Your task to perform on an android device: snooze an email in the gmail app Image 0: 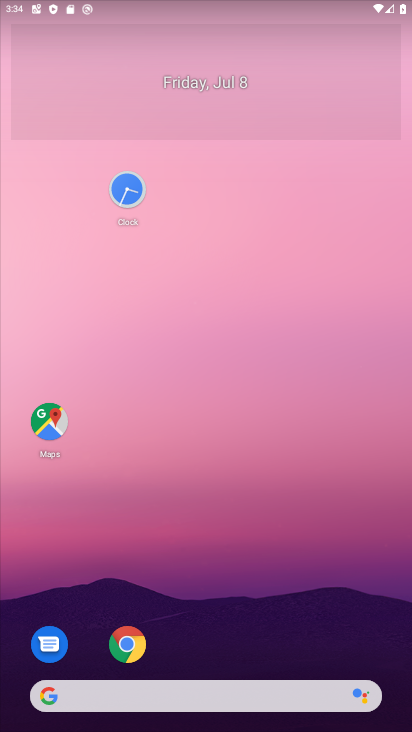
Step 0: drag from (231, 488) to (141, 109)
Your task to perform on an android device: snooze an email in the gmail app Image 1: 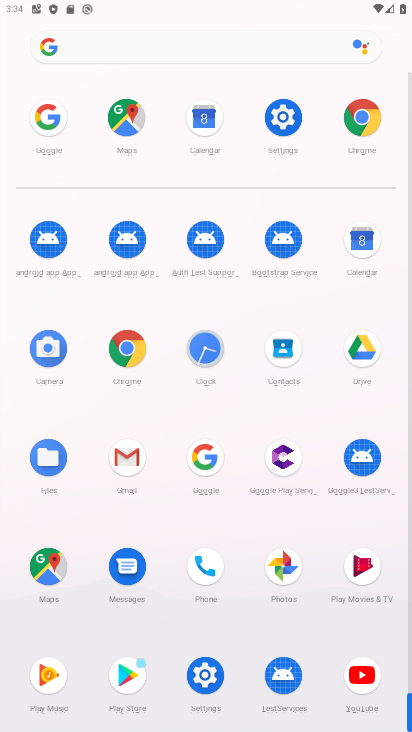
Step 1: click (122, 468)
Your task to perform on an android device: snooze an email in the gmail app Image 2: 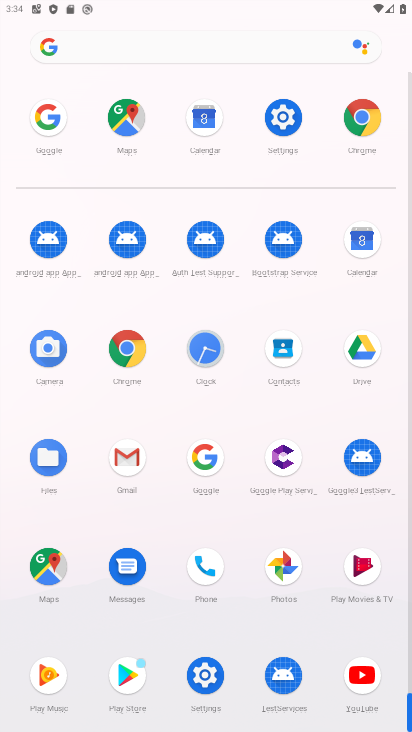
Step 2: click (121, 465)
Your task to perform on an android device: snooze an email in the gmail app Image 3: 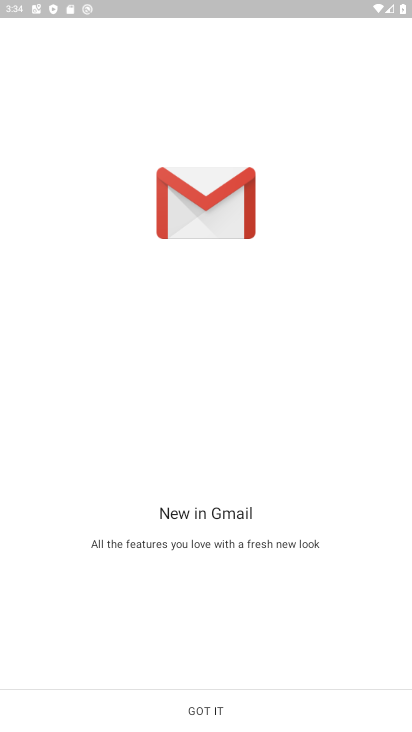
Step 3: click (126, 463)
Your task to perform on an android device: snooze an email in the gmail app Image 4: 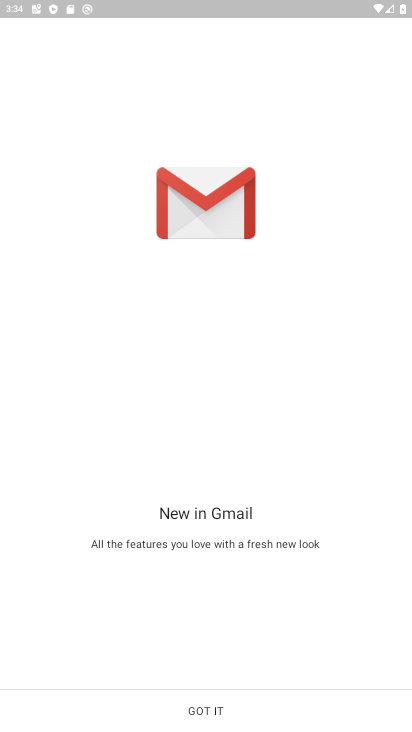
Step 4: click (126, 463)
Your task to perform on an android device: snooze an email in the gmail app Image 5: 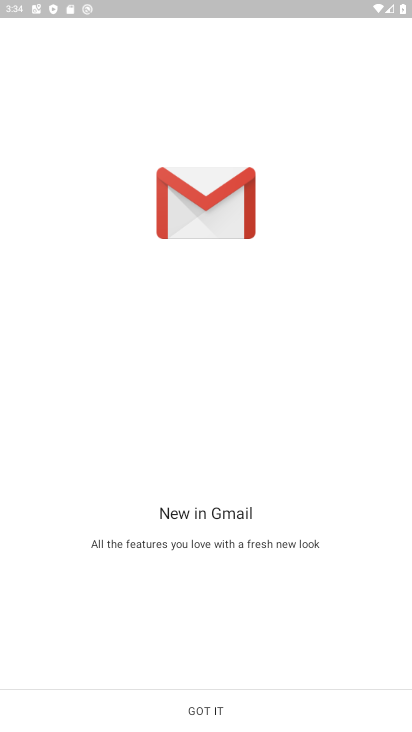
Step 5: click (126, 463)
Your task to perform on an android device: snooze an email in the gmail app Image 6: 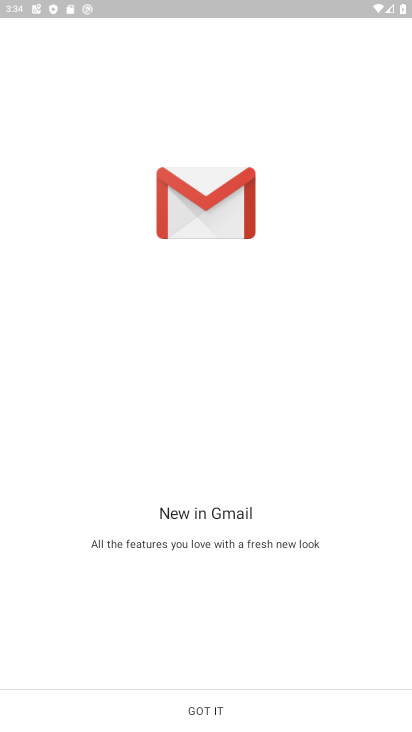
Step 6: click (126, 460)
Your task to perform on an android device: snooze an email in the gmail app Image 7: 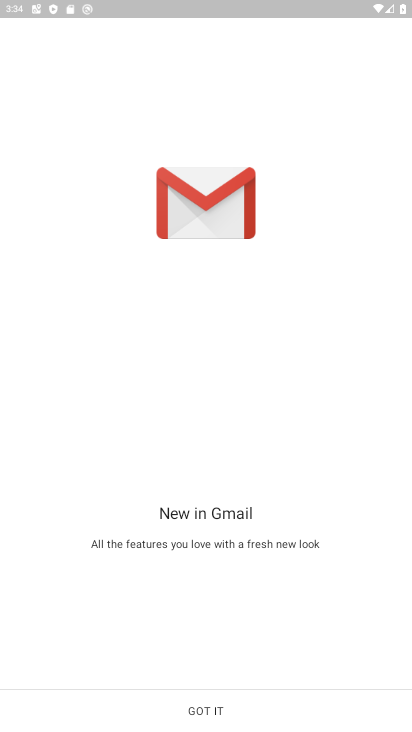
Step 7: click (120, 457)
Your task to perform on an android device: snooze an email in the gmail app Image 8: 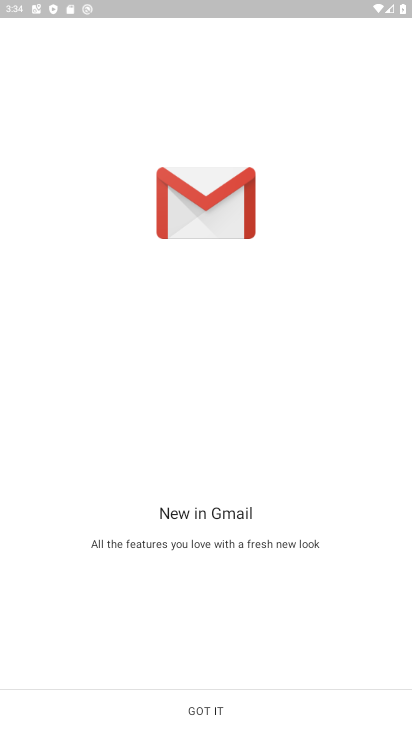
Step 8: click (120, 457)
Your task to perform on an android device: snooze an email in the gmail app Image 9: 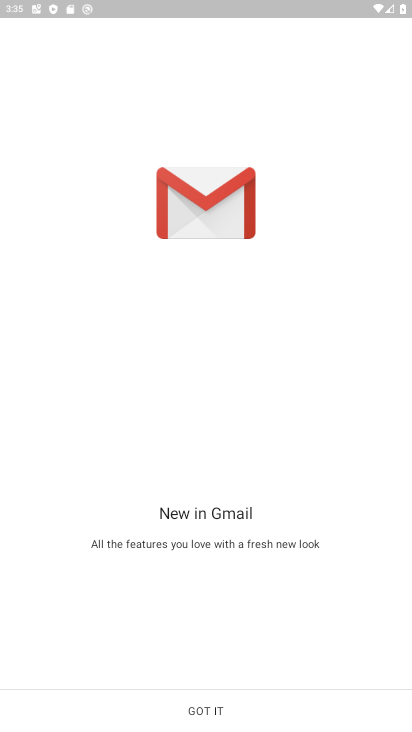
Step 9: click (212, 710)
Your task to perform on an android device: snooze an email in the gmail app Image 10: 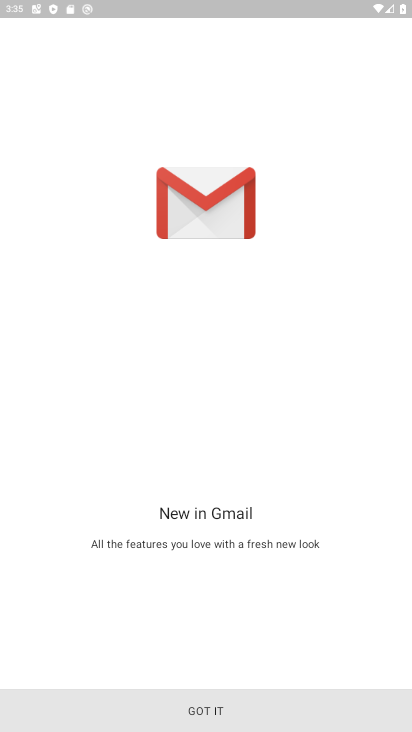
Step 10: click (210, 711)
Your task to perform on an android device: snooze an email in the gmail app Image 11: 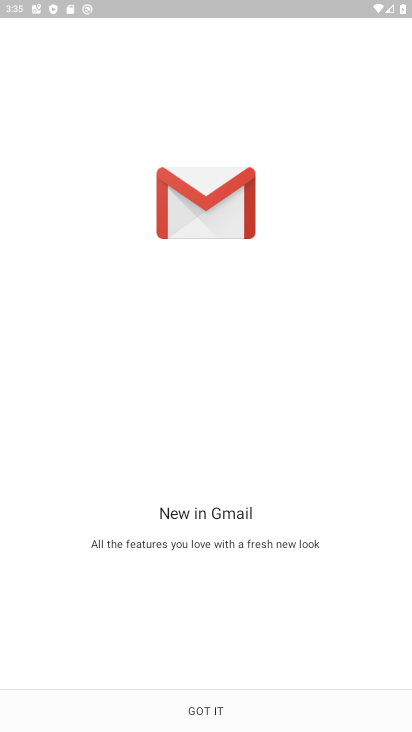
Step 11: click (207, 711)
Your task to perform on an android device: snooze an email in the gmail app Image 12: 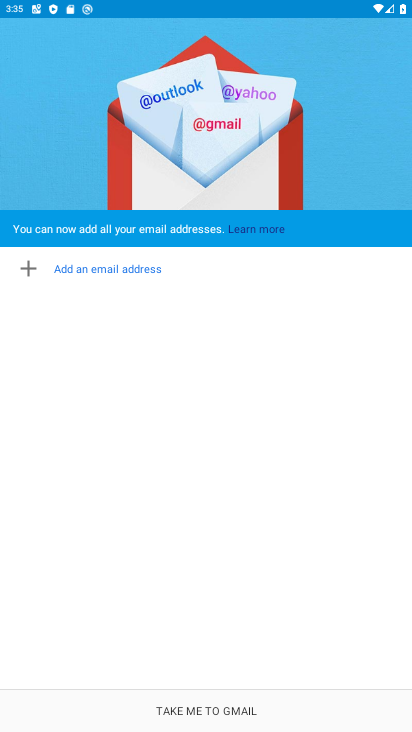
Step 12: click (207, 711)
Your task to perform on an android device: snooze an email in the gmail app Image 13: 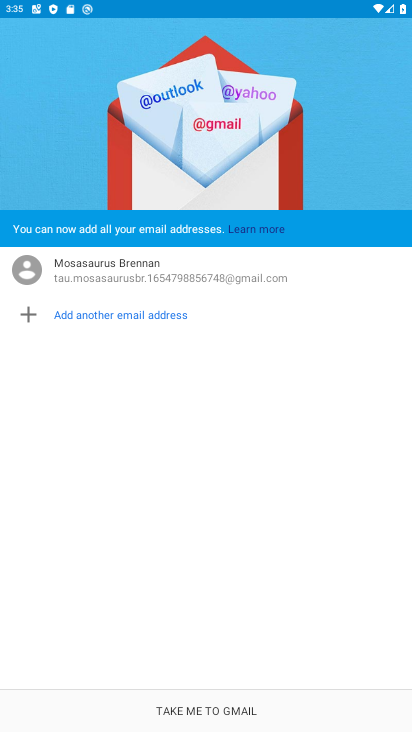
Step 13: click (207, 711)
Your task to perform on an android device: snooze an email in the gmail app Image 14: 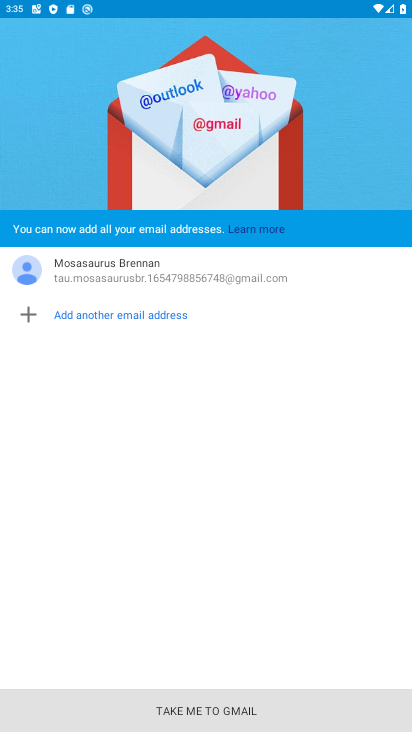
Step 14: click (207, 711)
Your task to perform on an android device: snooze an email in the gmail app Image 15: 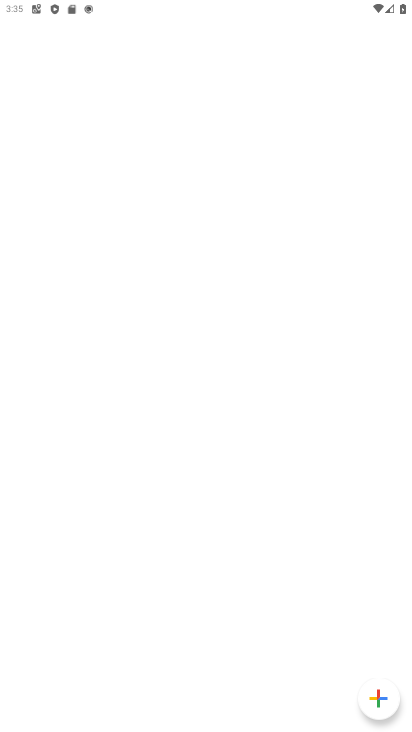
Step 15: click (207, 711)
Your task to perform on an android device: snooze an email in the gmail app Image 16: 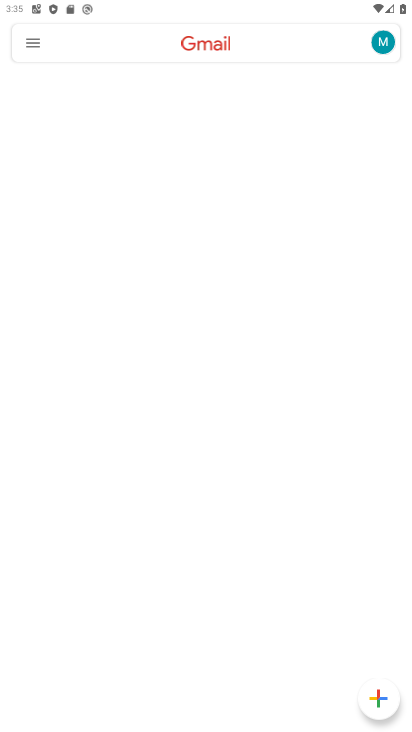
Step 16: click (207, 709)
Your task to perform on an android device: snooze an email in the gmail app Image 17: 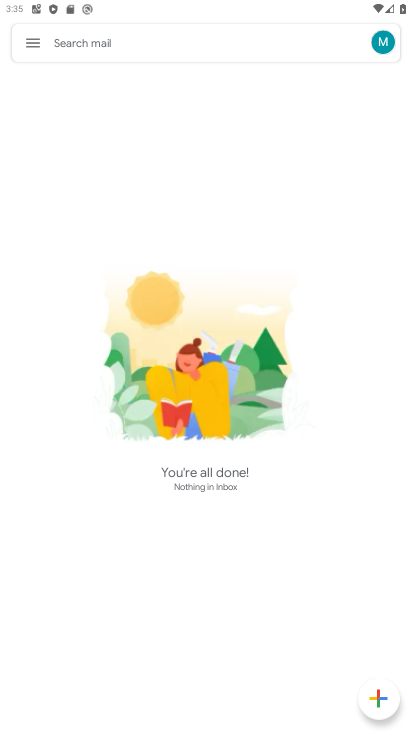
Step 17: click (35, 44)
Your task to perform on an android device: snooze an email in the gmail app Image 18: 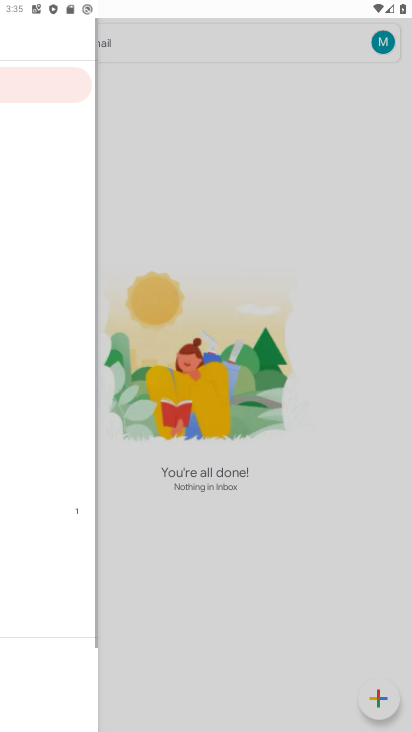
Step 18: click (34, 46)
Your task to perform on an android device: snooze an email in the gmail app Image 19: 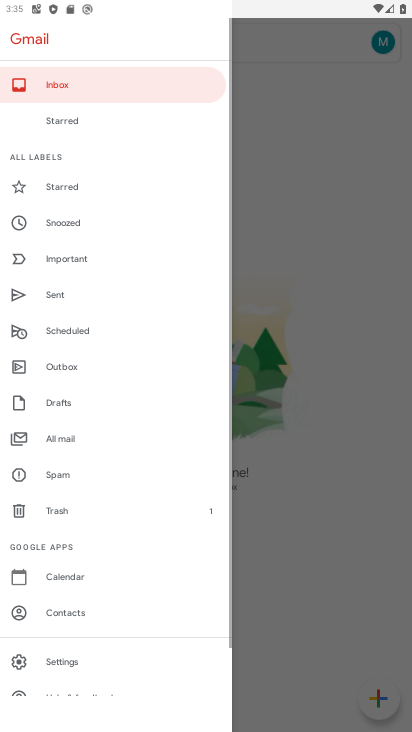
Step 19: click (35, 47)
Your task to perform on an android device: snooze an email in the gmail app Image 20: 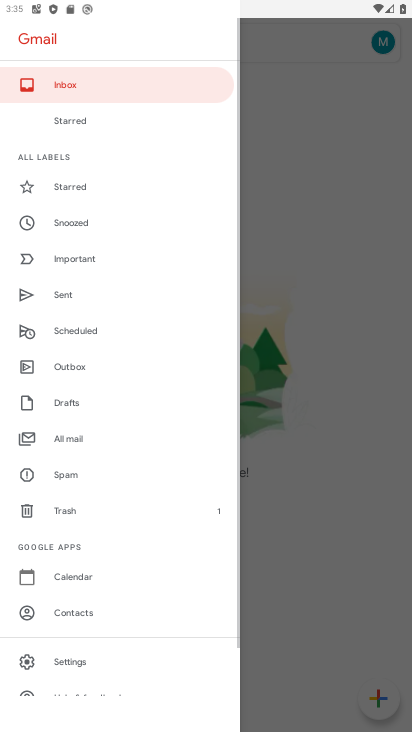
Step 20: click (34, 49)
Your task to perform on an android device: snooze an email in the gmail app Image 21: 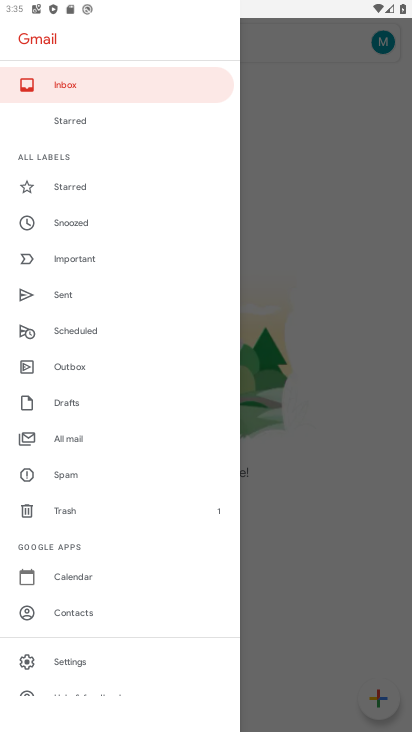
Step 21: click (281, 294)
Your task to perform on an android device: snooze an email in the gmail app Image 22: 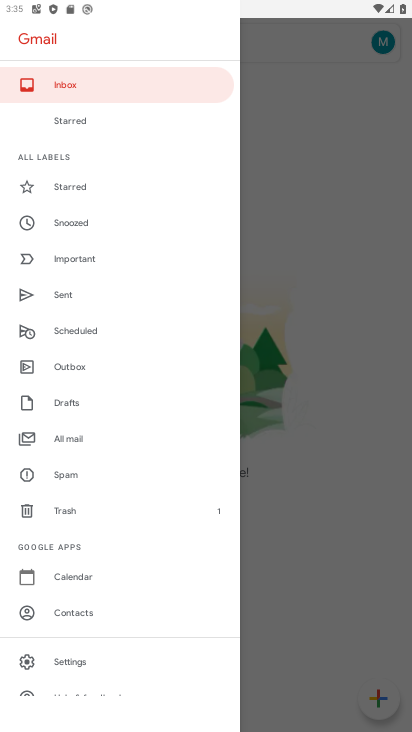
Step 22: click (291, 285)
Your task to perform on an android device: snooze an email in the gmail app Image 23: 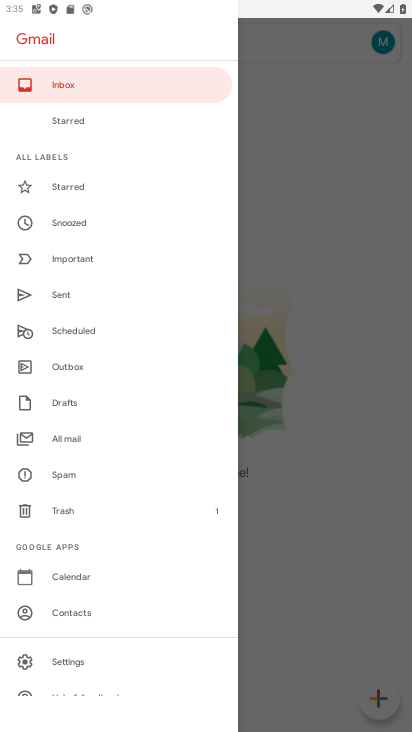
Step 23: click (291, 284)
Your task to perform on an android device: snooze an email in the gmail app Image 24: 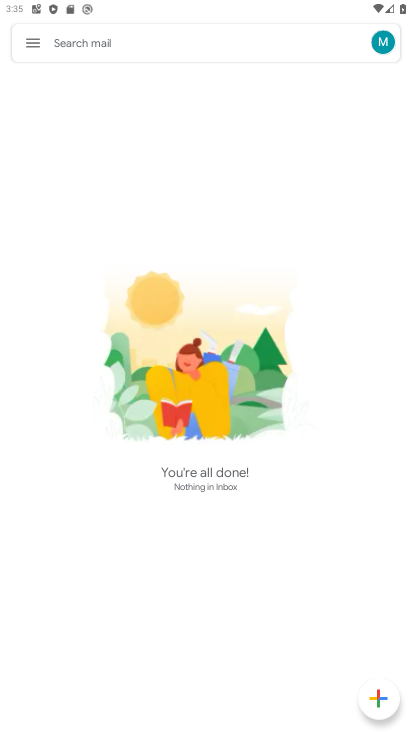
Step 24: click (131, 92)
Your task to perform on an android device: snooze an email in the gmail app Image 25: 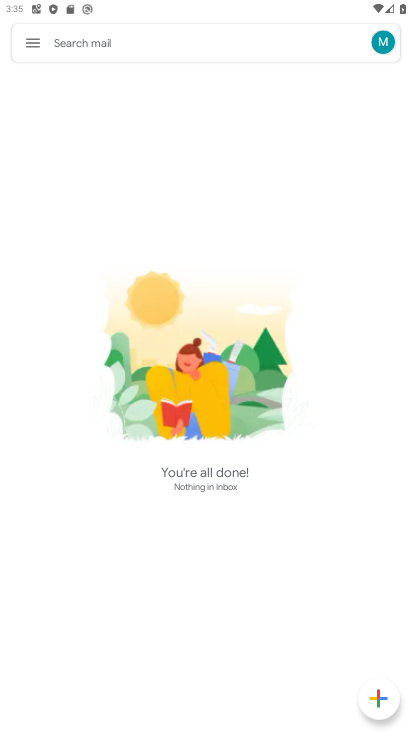
Step 25: click (131, 92)
Your task to perform on an android device: snooze an email in the gmail app Image 26: 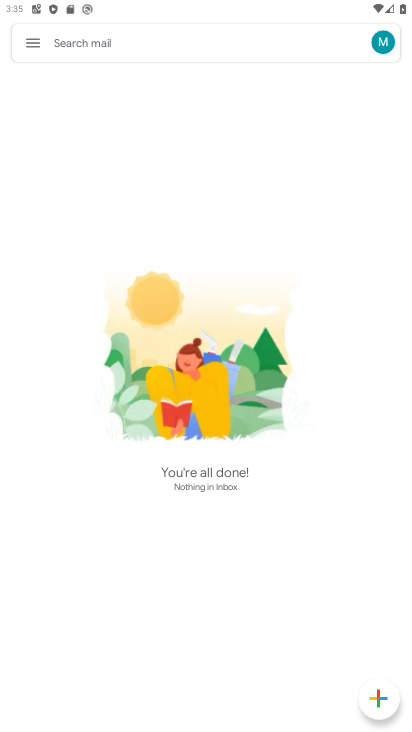
Step 26: click (131, 92)
Your task to perform on an android device: snooze an email in the gmail app Image 27: 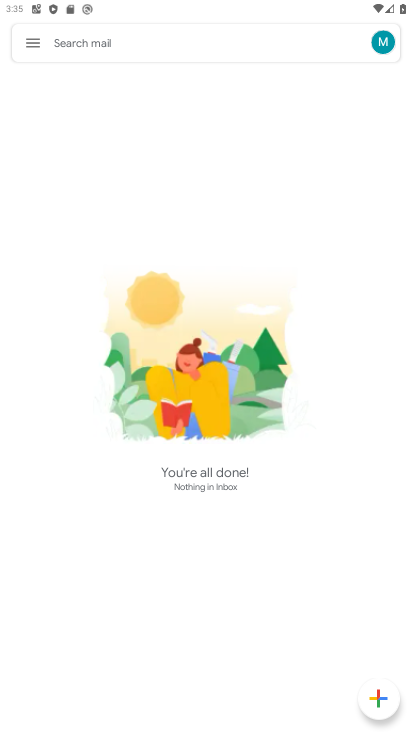
Step 27: click (29, 38)
Your task to perform on an android device: snooze an email in the gmail app Image 28: 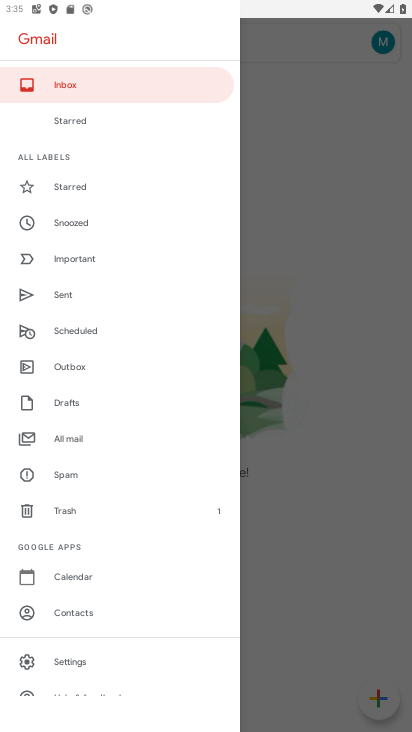
Step 28: click (72, 443)
Your task to perform on an android device: snooze an email in the gmail app Image 29: 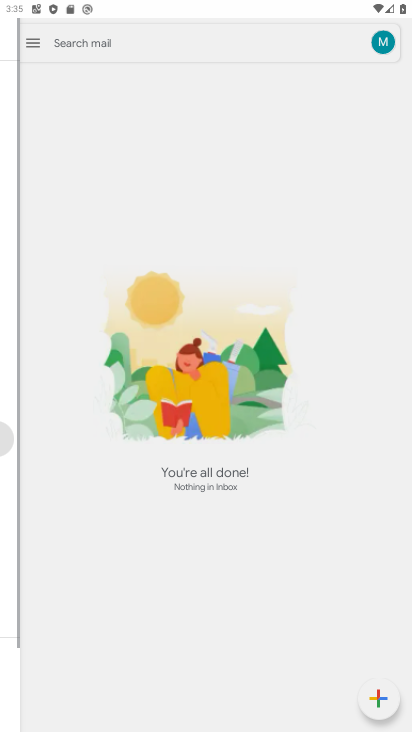
Step 29: click (72, 443)
Your task to perform on an android device: snooze an email in the gmail app Image 30: 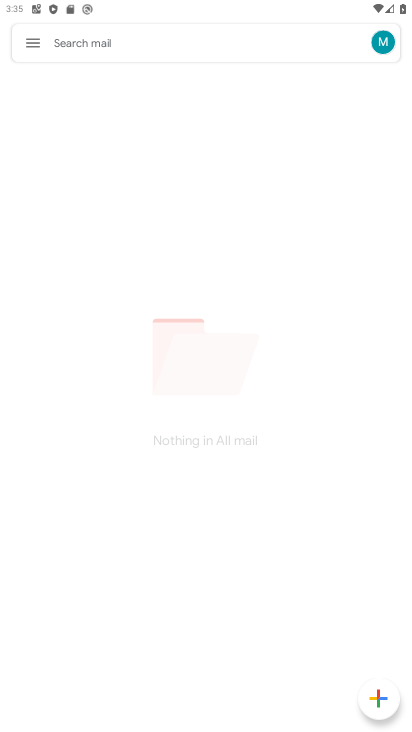
Step 30: click (72, 443)
Your task to perform on an android device: snooze an email in the gmail app Image 31: 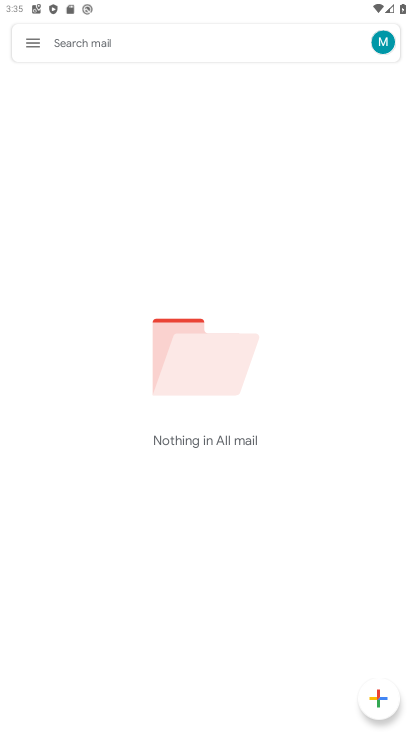
Step 31: click (72, 443)
Your task to perform on an android device: snooze an email in the gmail app Image 32: 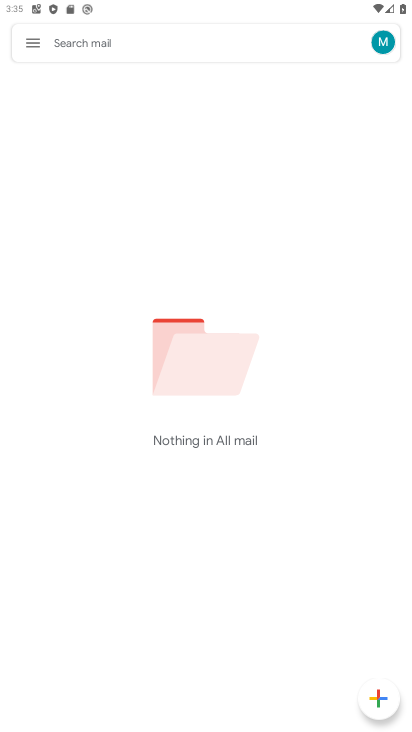
Step 32: task complete